Your task to perform on an android device: open device folders in google photos Image 0: 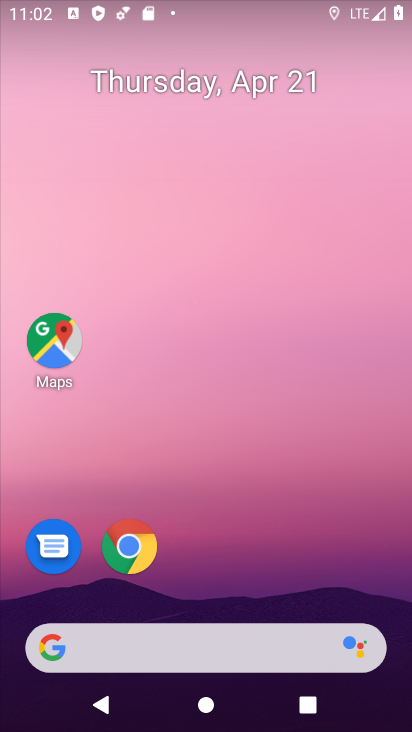
Step 0: drag from (391, 605) to (317, 120)
Your task to perform on an android device: open device folders in google photos Image 1: 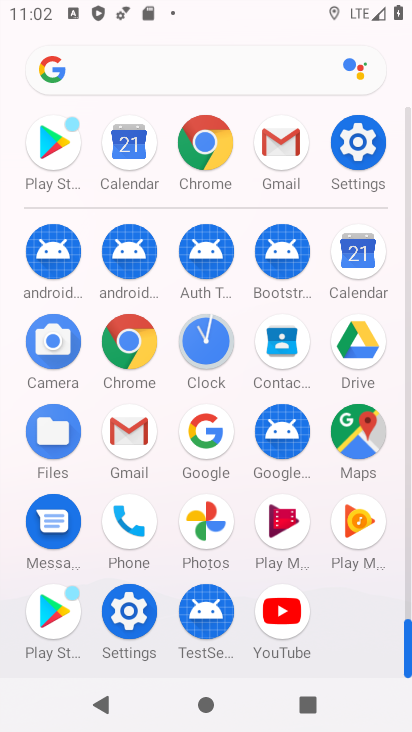
Step 1: click (205, 519)
Your task to perform on an android device: open device folders in google photos Image 2: 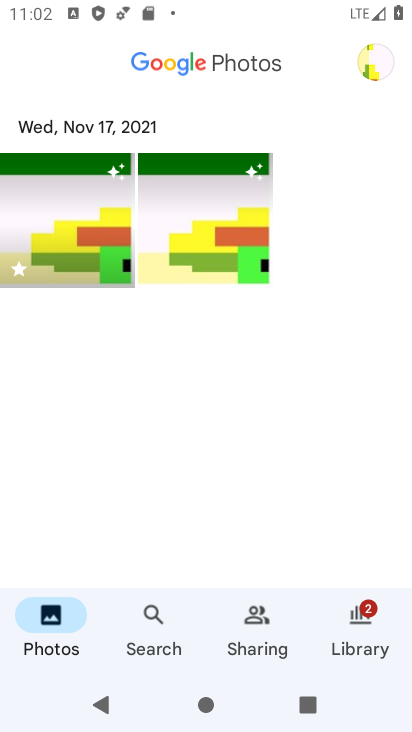
Step 2: click (362, 623)
Your task to perform on an android device: open device folders in google photos Image 3: 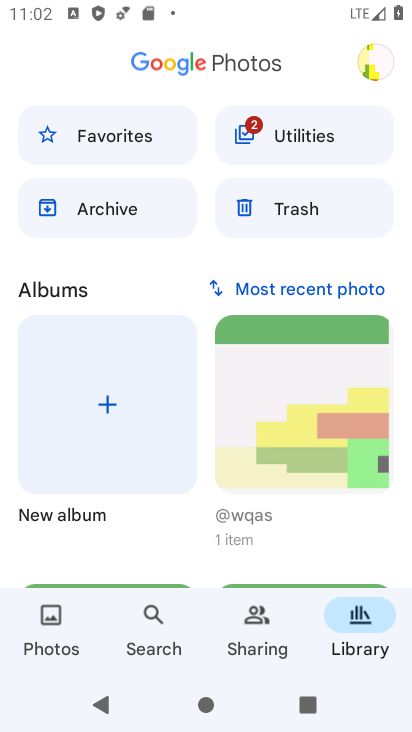
Step 3: drag from (207, 489) to (201, 100)
Your task to perform on an android device: open device folders in google photos Image 4: 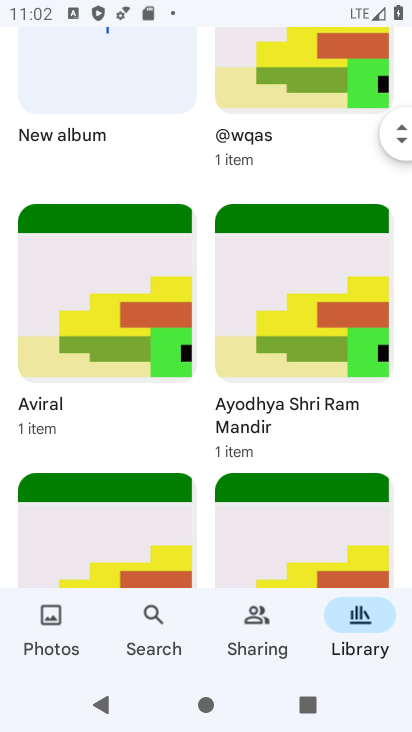
Step 4: drag from (201, 113) to (188, 538)
Your task to perform on an android device: open device folders in google photos Image 5: 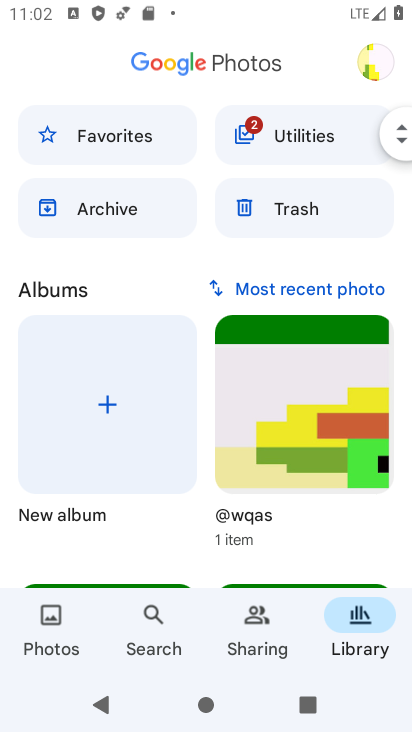
Step 5: click (370, 74)
Your task to perform on an android device: open device folders in google photos Image 6: 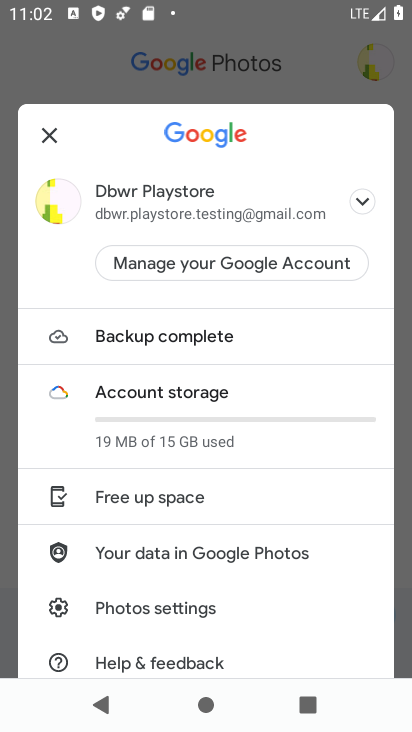
Step 6: task complete